Your task to perform on an android device: change keyboard looks Image 0: 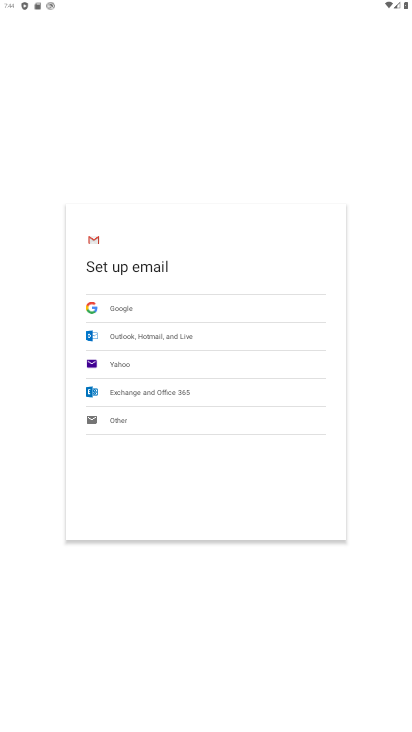
Step 0: press home button
Your task to perform on an android device: change keyboard looks Image 1: 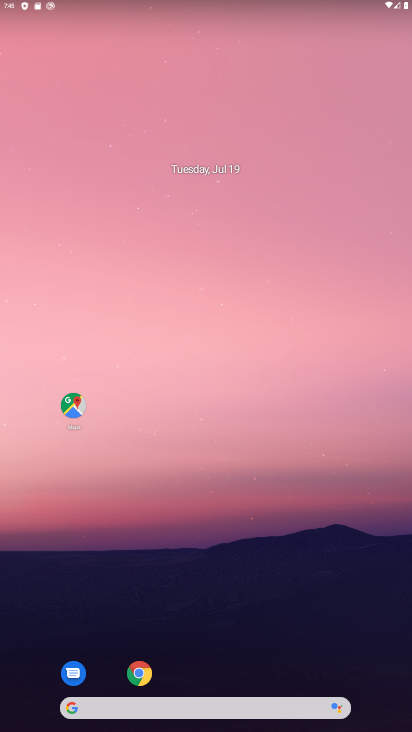
Step 1: drag from (193, 720) to (283, 27)
Your task to perform on an android device: change keyboard looks Image 2: 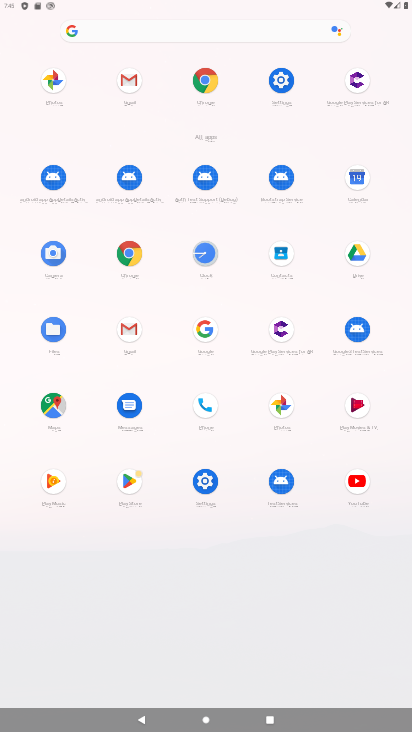
Step 2: click (271, 83)
Your task to perform on an android device: change keyboard looks Image 3: 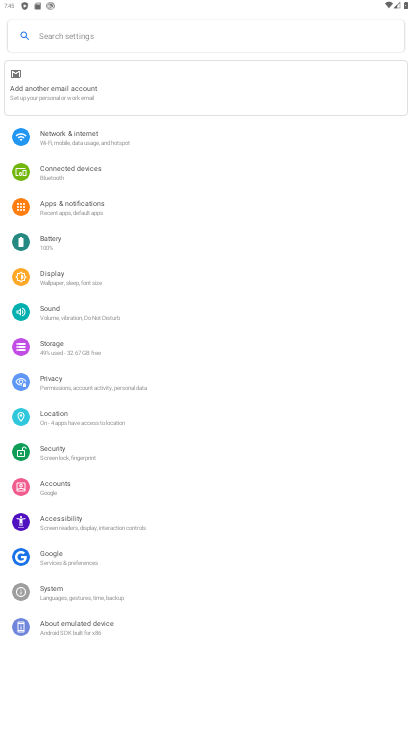
Step 3: click (119, 595)
Your task to perform on an android device: change keyboard looks Image 4: 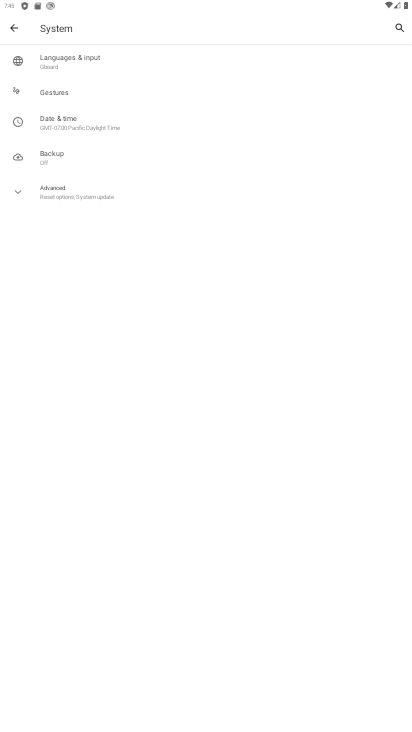
Step 4: click (87, 58)
Your task to perform on an android device: change keyboard looks Image 5: 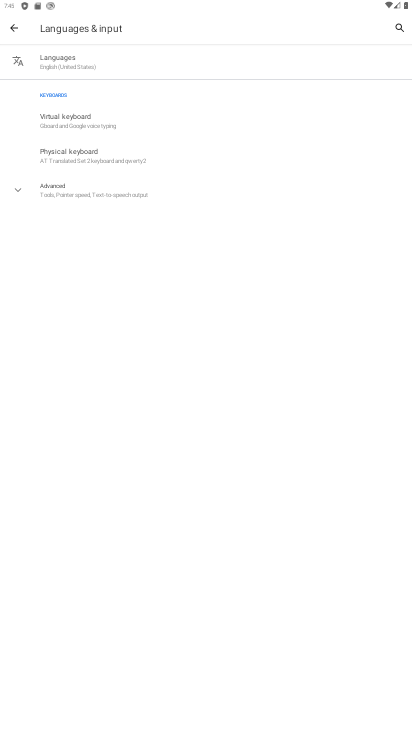
Step 5: click (82, 64)
Your task to perform on an android device: change keyboard looks Image 6: 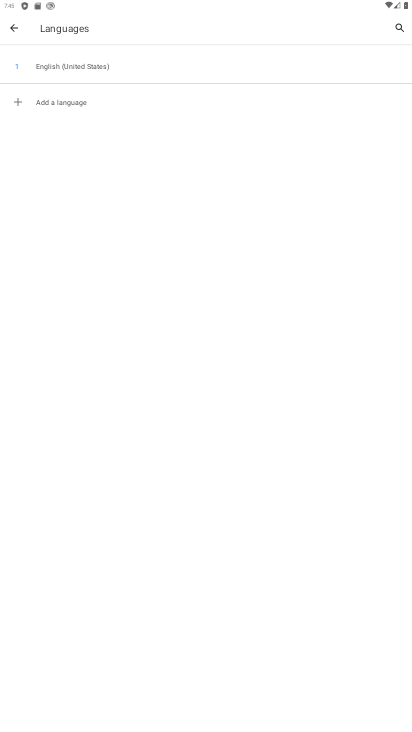
Step 6: click (19, 17)
Your task to perform on an android device: change keyboard looks Image 7: 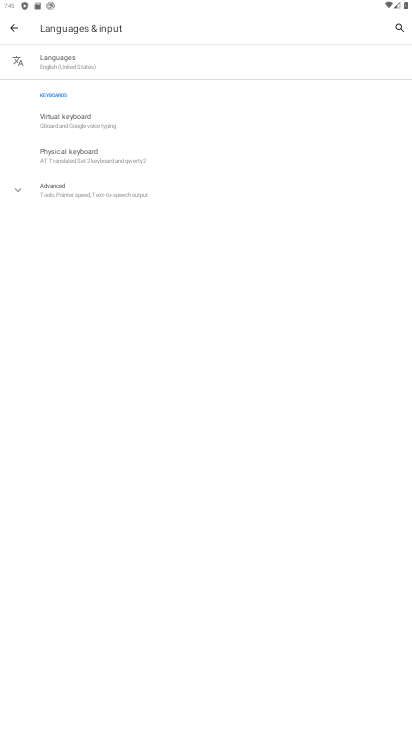
Step 7: click (113, 123)
Your task to perform on an android device: change keyboard looks Image 8: 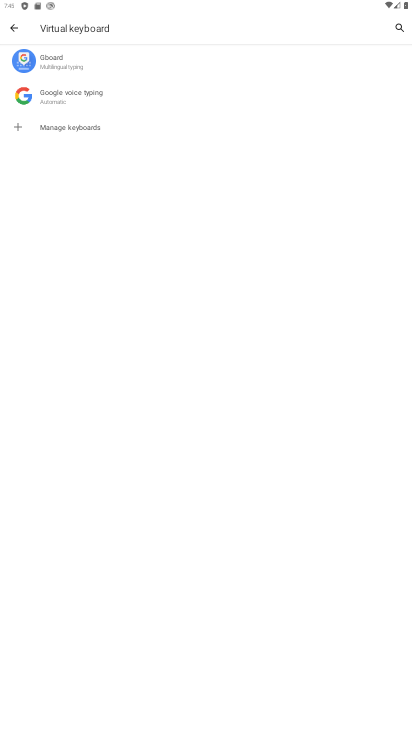
Step 8: click (78, 55)
Your task to perform on an android device: change keyboard looks Image 9: 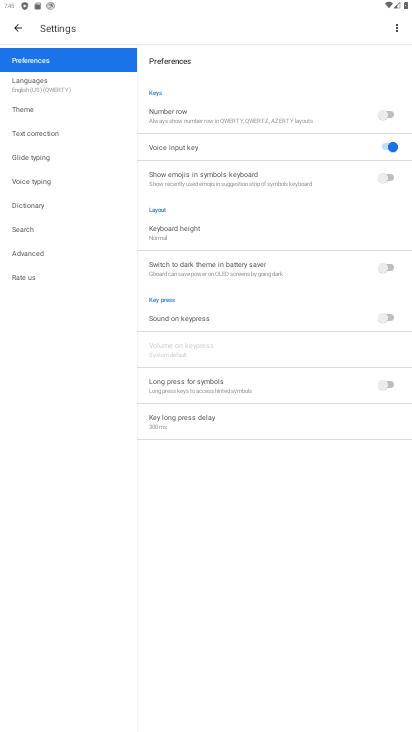
Step 9: click (19, 105)
Your task to perform on an android device: change keyboard looks Image 10: 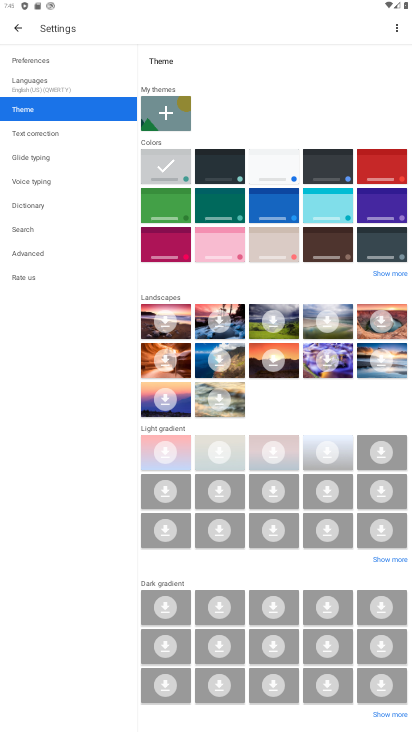
Step 10: click (195, 258)
Your task to perform on an android device: change keyboard looks Image 11: 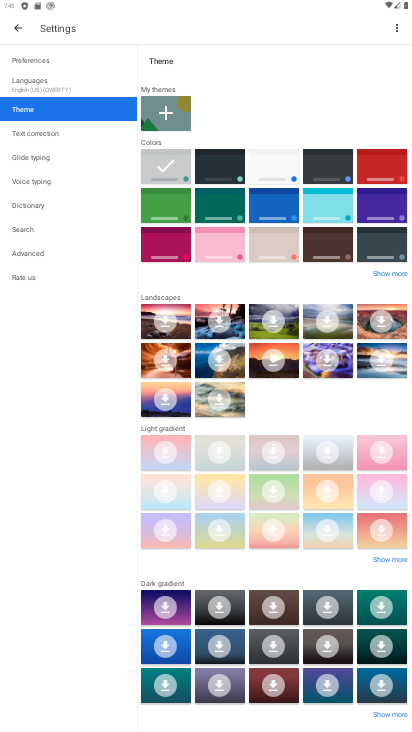
Step 11: click (223, 323)
Your task to perform on an android device: change keyboard looks Image 12: 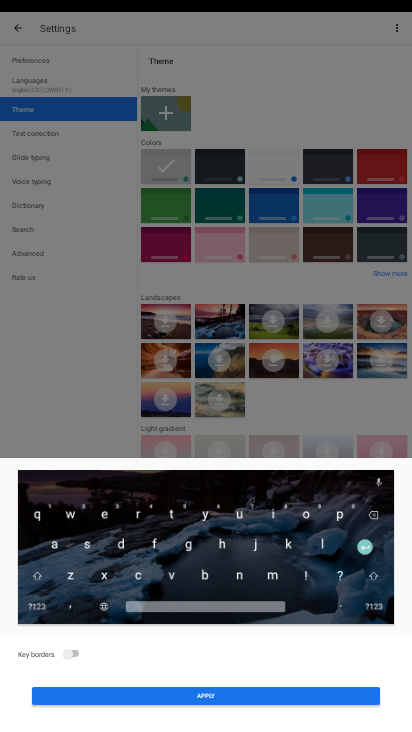
Step 12: click (219, 704)
Your task to perform on an android device: change keyboard looks Image 13: 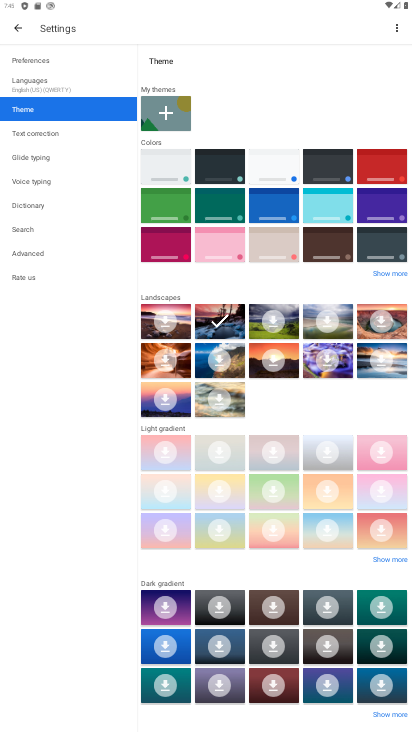
Step 13: task complete